Your task to perform on an android device: turn pop-ups off in chrome Image 0: 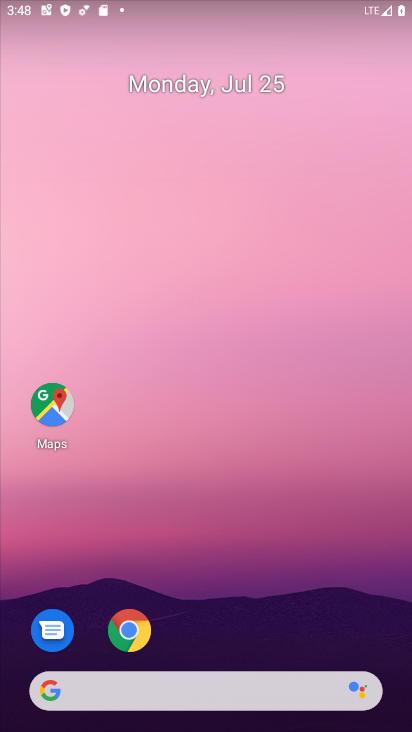
Step 0: drag from (235, 628) to (297, 0)
Your task to perform on an android device: turn pop-ups off in chrome Image 1: 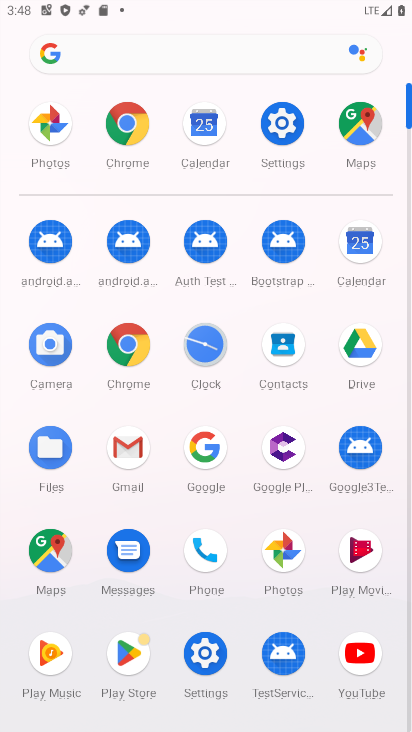
Step 1: click (129, 357)
Your task to perform on an android device: turn pop-ups off in chrome Image 2: 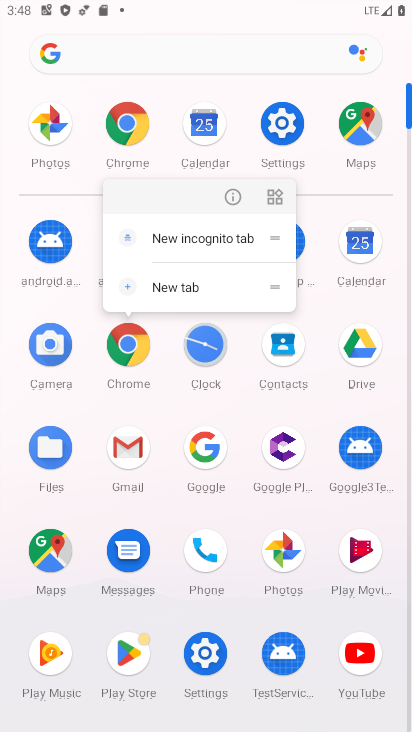
Step 2: click (121, 366)
Your task to perform on an android device: turn pop-ups off in chrome Image 3: 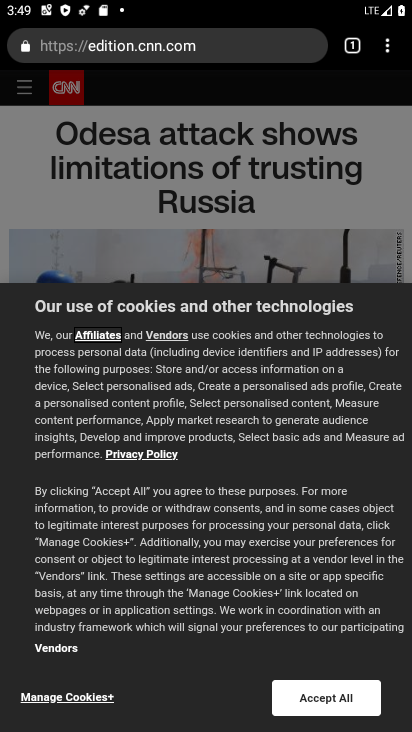
Step 3: click (389, 40)
Your task to perform on an android device: turn pop-ups off in chrome Image 4: 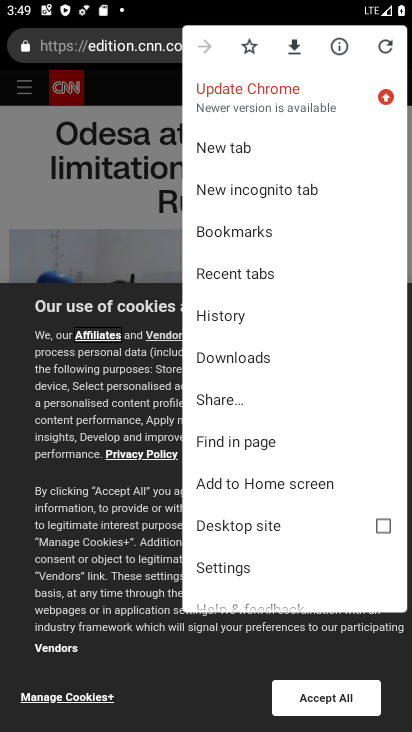
Step 4: click (388, 47)
Your task to perform on an android device: turn pop-ups off in chrome Image 5: 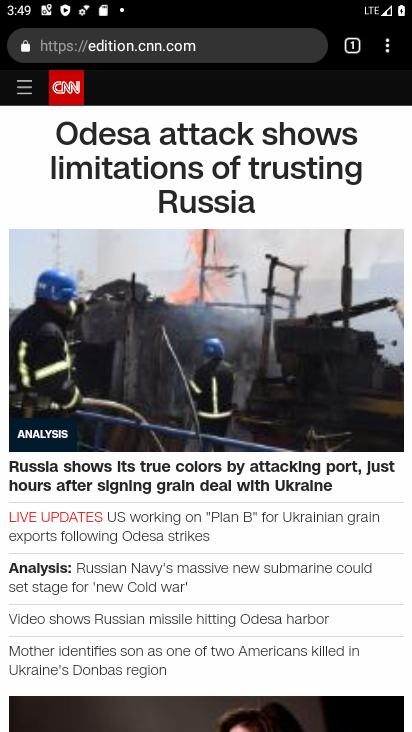
Step 5: click (386, 45)
Your task to perform on an android device: turn pop-ups off in chrome Image 6: 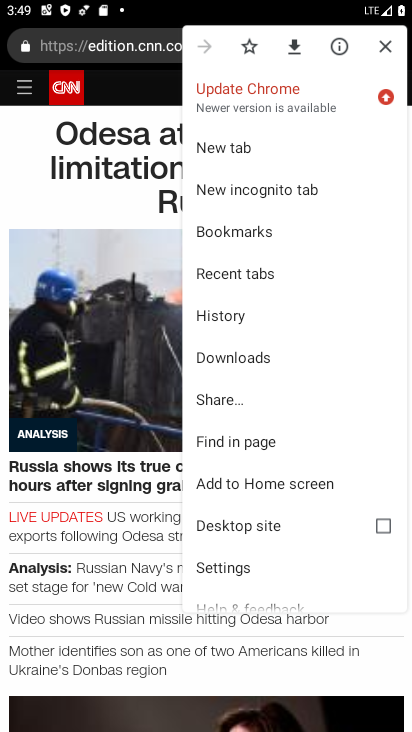
Step 6: click (231, 574)
Your task to perform on an android device: turn pop-ups off in chrome Image 7: 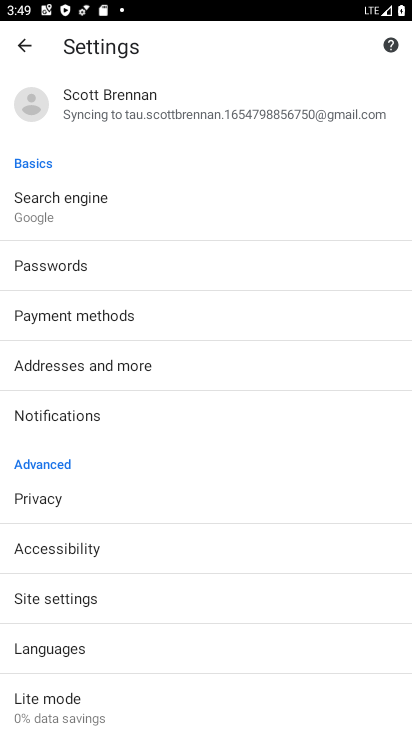
Step 7: click (72, 597)
Your task to perform on an android device: turn pop-ups off in chrome Image 8: 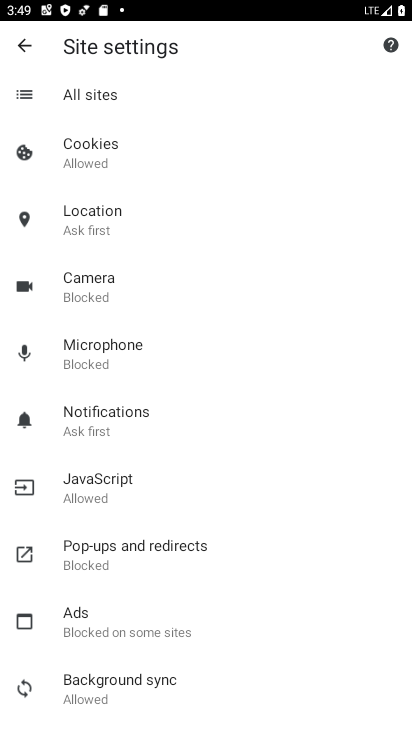
Step 8: click (117, 561)
Your task to perform on an android device: turn pop-ups off in chrome Image 9: 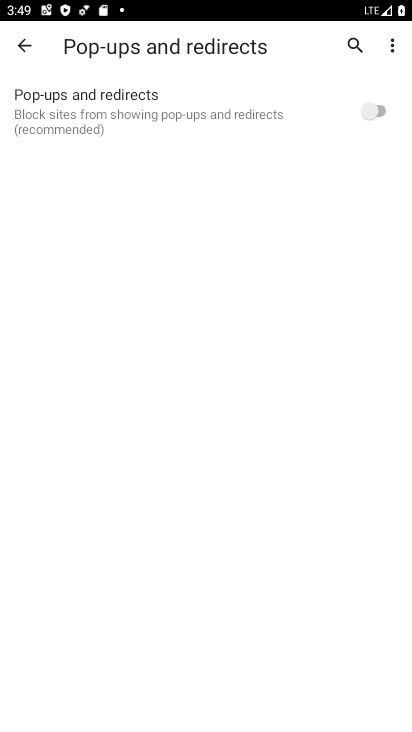
Step 9: task complete